Your task to perform on an android device: check storage Image 0: 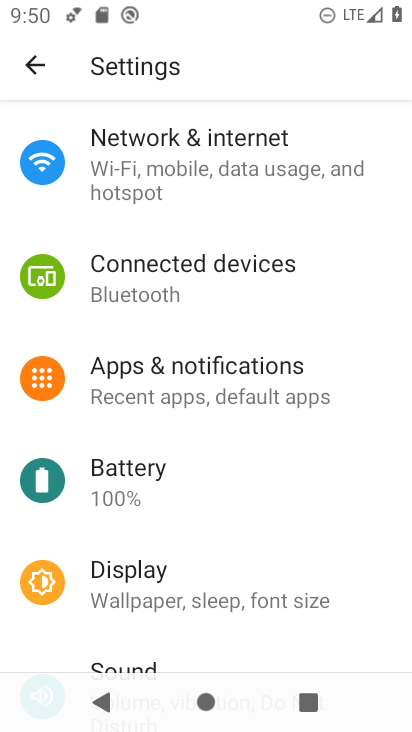
Step 0: drag from (208, 593) to (227, 44)
Your task to perform on an android device: check storage Image 1: 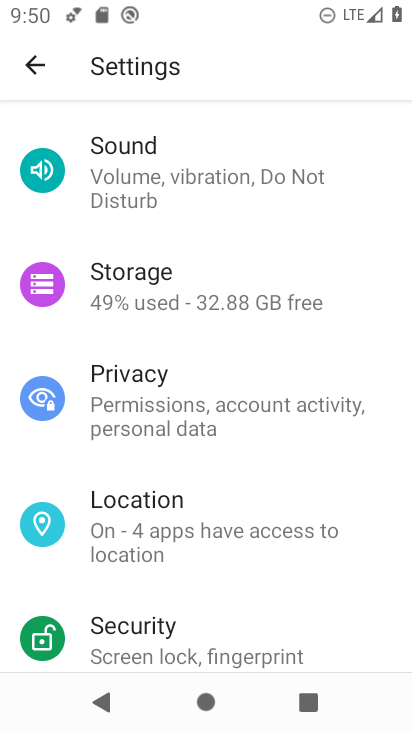
Step 1: click (185, 273)
Your task to perform on an android device: check storage Image 2: 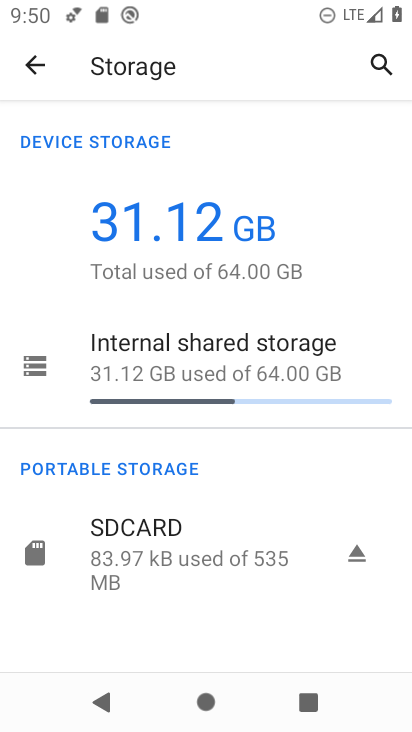
Step 2: task complete